Your task to perform on an android device: Open the Play Movies app and select the watchlist tab. Image 0: 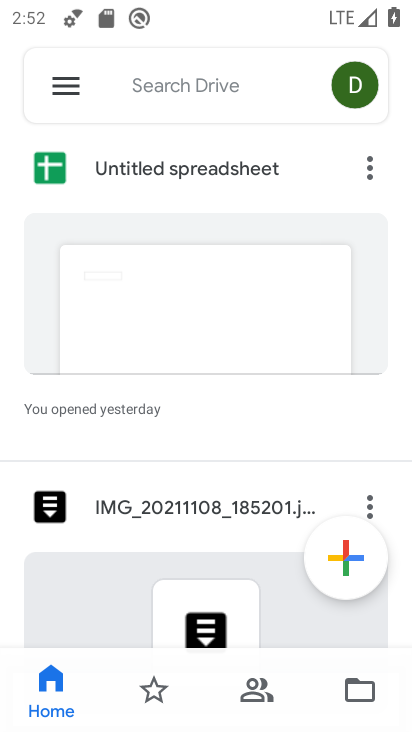
Step 0: press home button
Your task to perform on an android device: Open the Play Movies app and select the watchlist tab. Image 1: 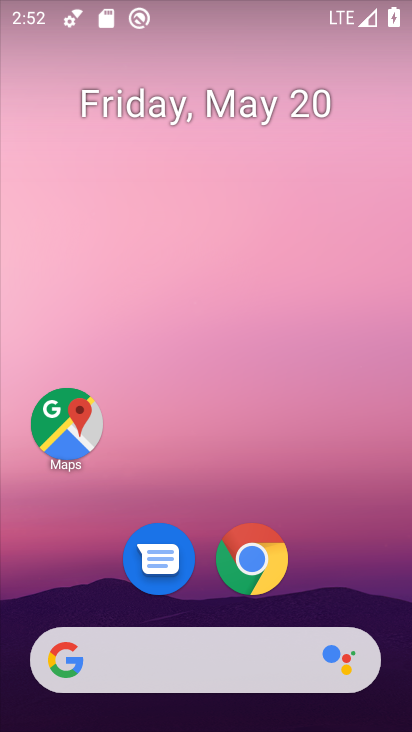
Step 1: drag from (220, 486) to (187, 5)
Your task to perform on an android device: Open the Play Movies app and select the watchlist tab. Image 2: 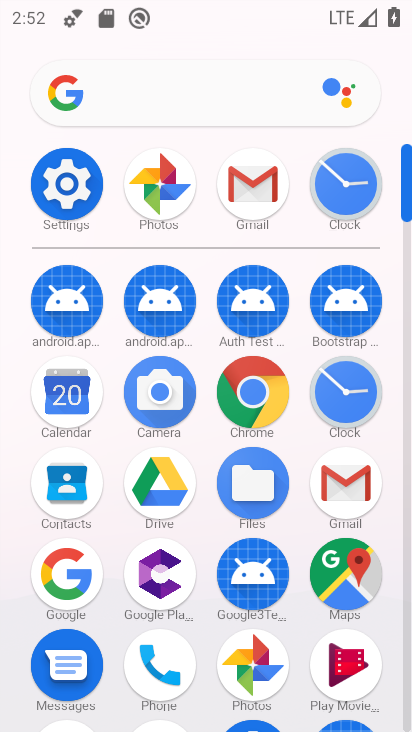
Step 2: click (340, 667)
Your task to perform on an android device: Open the Play Movies app and select the watchlist tab. Image 3: 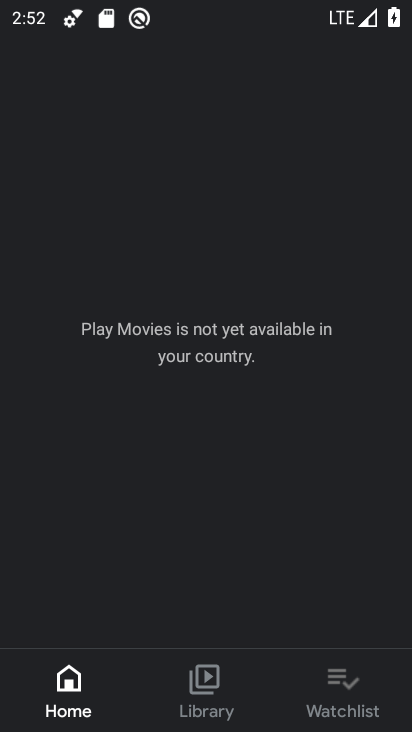
Step 3: click (344, 688)
Your task to perform on an android device: Open the Play Movies app and select the watchlist tab. Image 4: 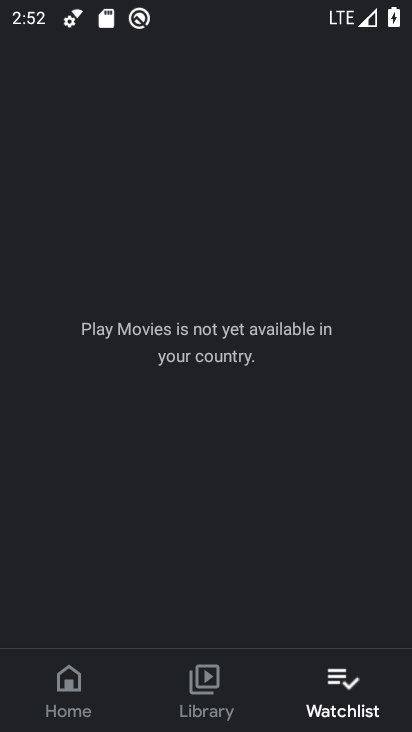
Step 4: task complete